Your task to perform on an android device: What's the weather today? Image 0: 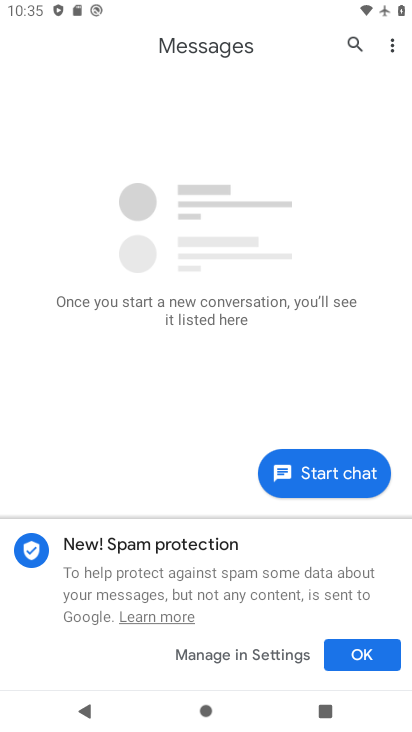
Step 0: press home button
Your task to perform on an android device: What's the weather today? Image 1: 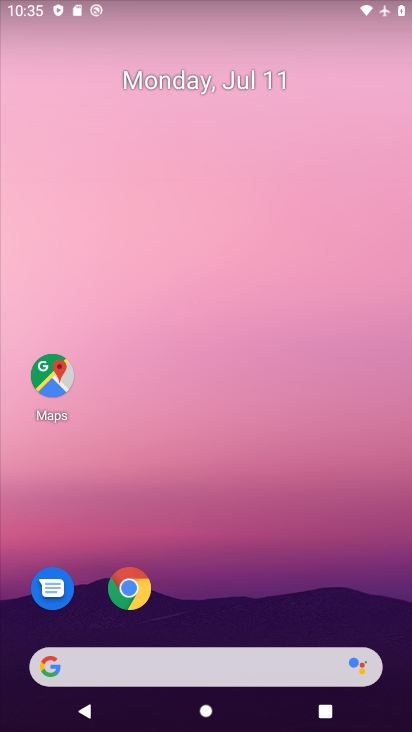
Step 1: click (185, 665)
Your task to perform on an android device: What's the weather today? Image 2: 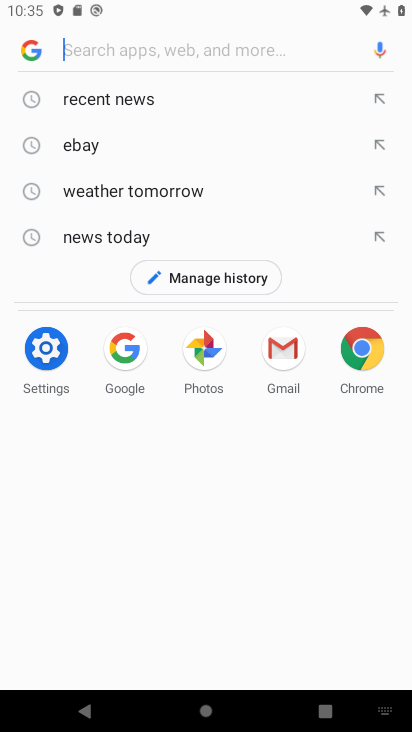
Step 2: type "weather today"
Your task to perform on an android device: What's the weather today? Image 3: 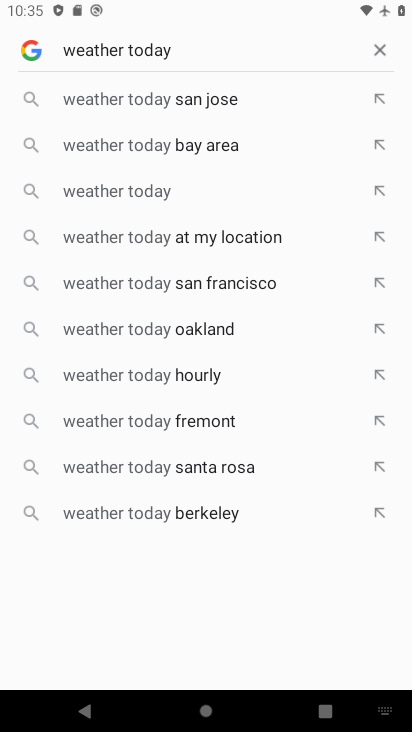
Step 3: click (117, 192)
Your task to perform on an android device: What's the weather today? Image 4: 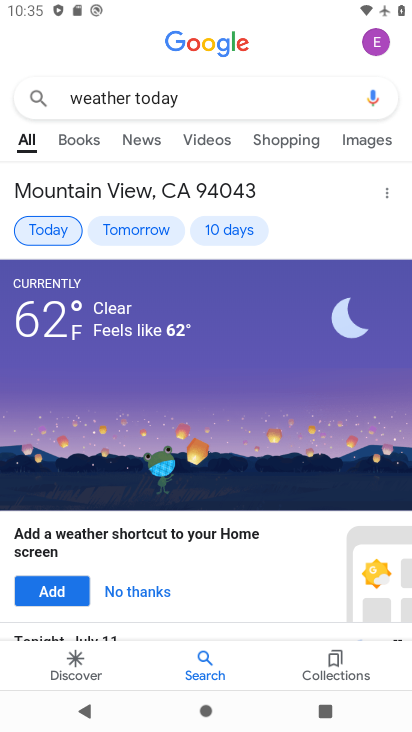
Step 4: task complete